Your task to perform on an android device: Open the Play Movies app and select the watchlist tab. Image 0: 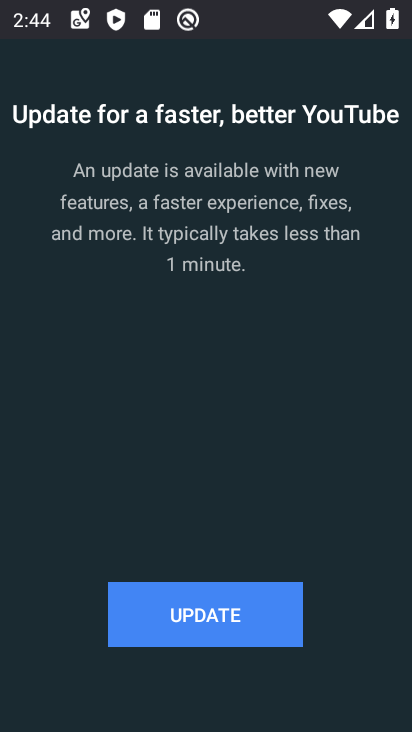
Step 0: press home button
Your task to perform on an android device: Open the Play Movies app and select the watchlist tab. Image 1: 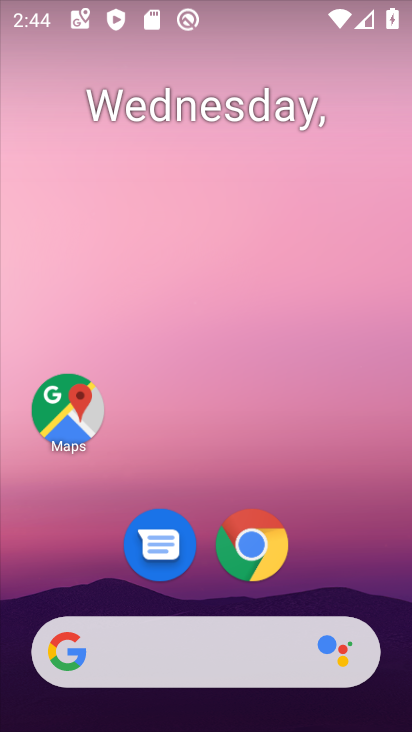
Step 1: drag from (153, 639) to (316, 42)
Your task to perform on an android device: Open the Play Movies app and select the watchlist tab. Image 2: 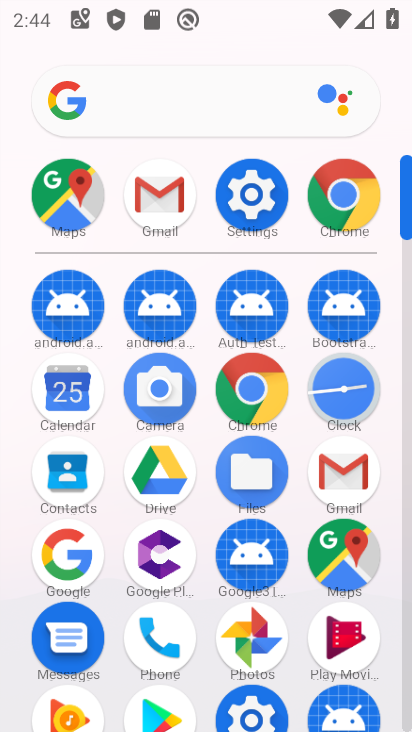
Step 2: click (342, 635)
Your task to perform on an android device: Open the Play Movies app and select the watchlist tab. Image 3: 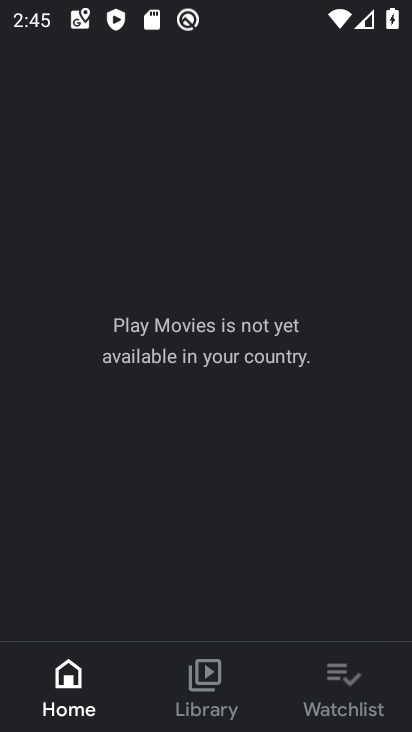
Step 3: click (346, 704)
Your task to perform on an android device: Open the Play Movies app and select the watchlist tab. Image 4: 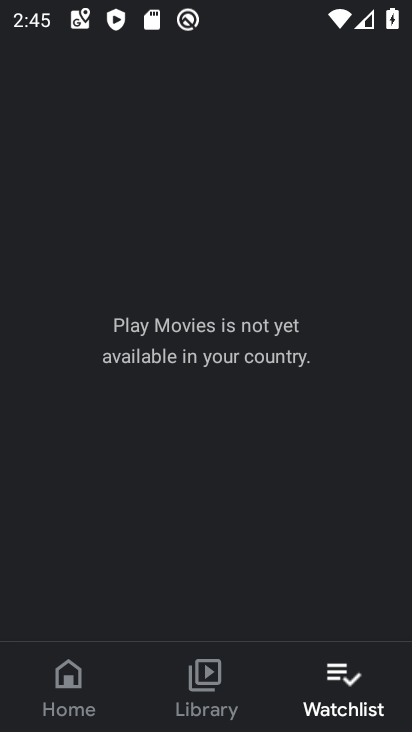
Step 4: task complete